Your task to perform on an android device: Open Youtube and go to "Your channel" Image 0: 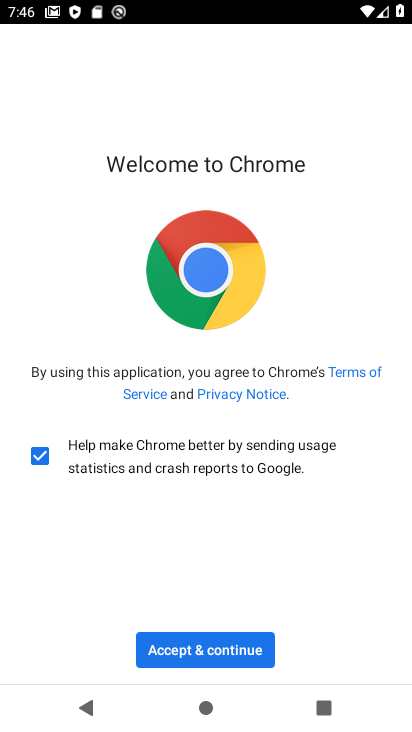
Step 0: press home button
Your task to perform on an android device: Open Youtube and go to "Your channel" Image 1: 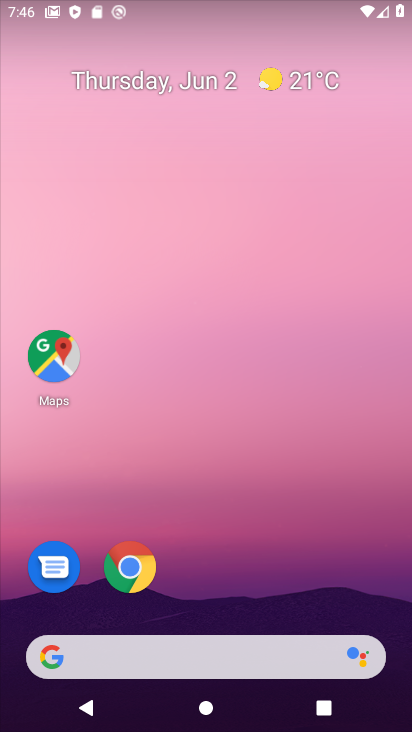
Step 1: drag from (394, 606) to (221, 32)
Your task to perform on an android device: Open Youtube and go to "Your channel" Image 2: 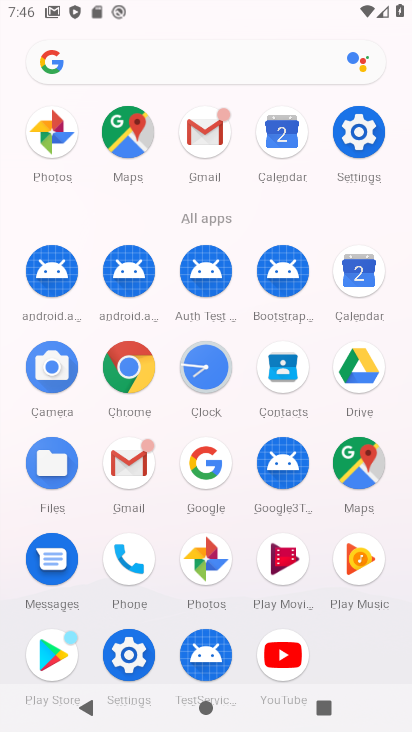
Step 2: click (283, 655)
Your task to perform on an android device: Open Youtube and go to "Your channel" Image 3: 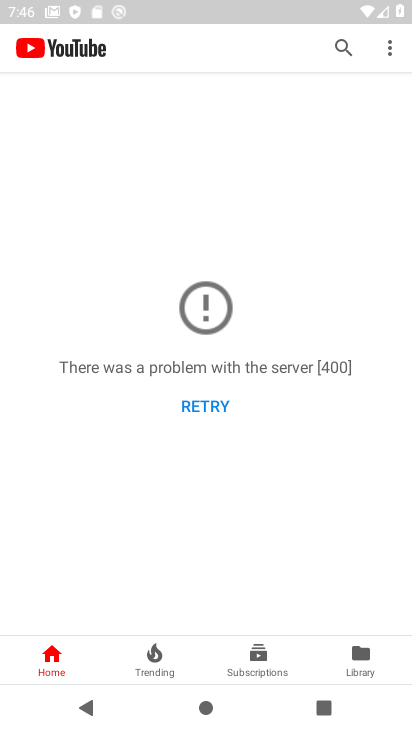
Step 3: click (386, 54)
Your task to perform on an android device: Open Youtube and go to "Your channel" Image 4: 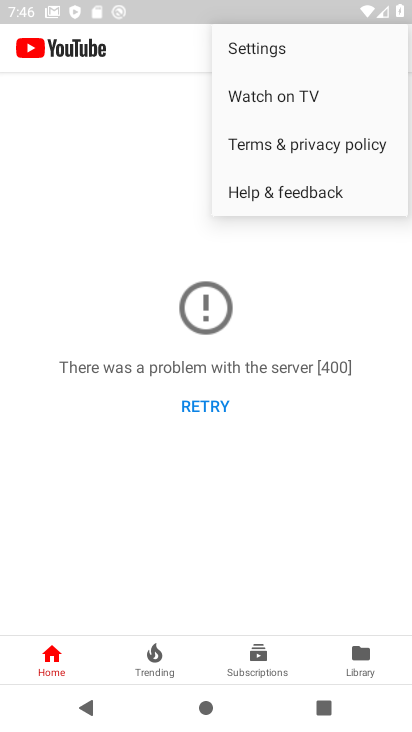
Step 4: click (247, 44)
Your task to perform on an android device: Open Youtube and go to "Your channel" Image 5: 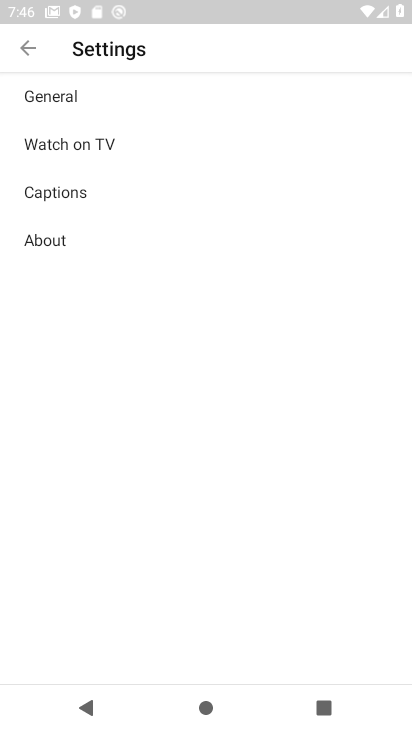
Step 5: click (70, 97)
Your task to perform on an android device: Open Youtube and go to "Your channel" Image 6: 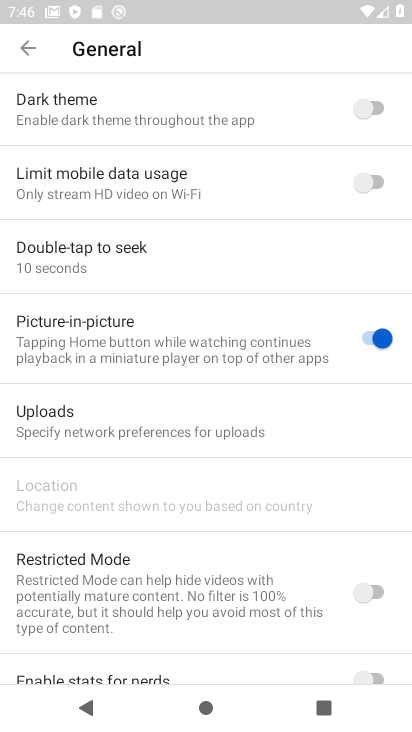
Step 6: task complete